Your task to perform on an android device: empty trash in google photos Image 0: 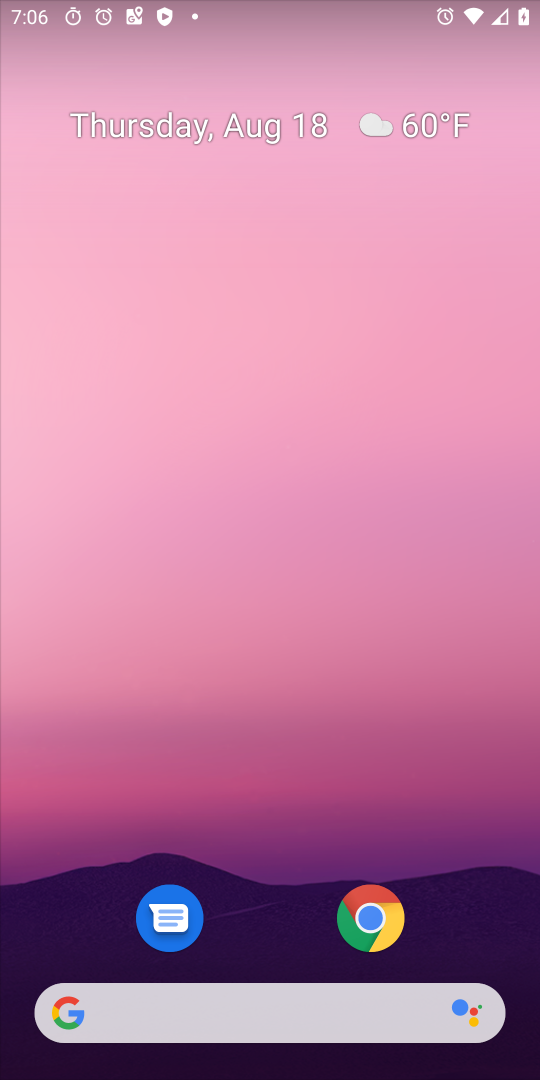
Step 0: drag from (248, 901) to (259, 243)
Your task to perform on an android device: empty trash in google photos Image 1: 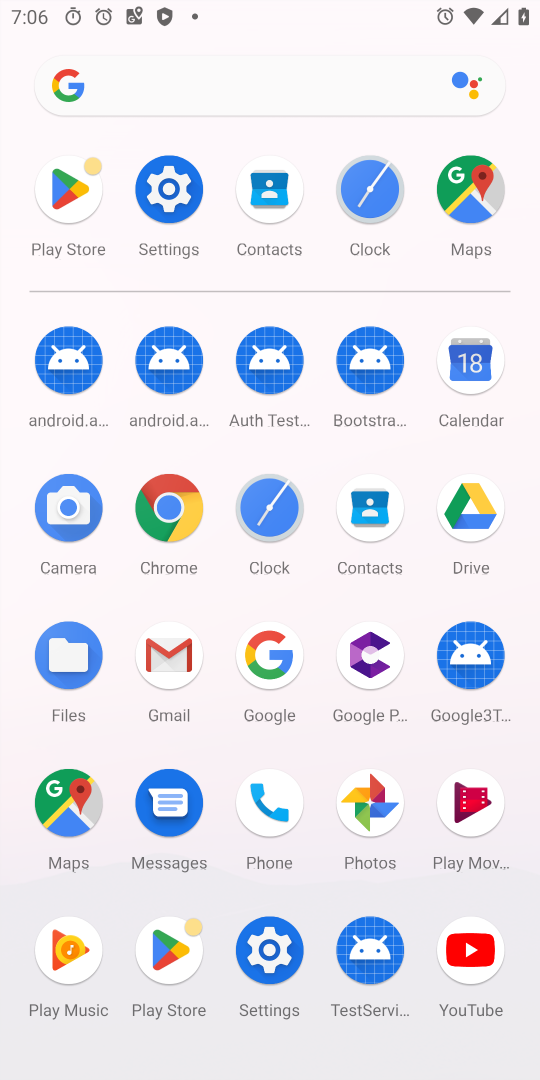
Step 1: click (350, 802)
Your task to perform on an android device: empty trash in google photos Image 2: 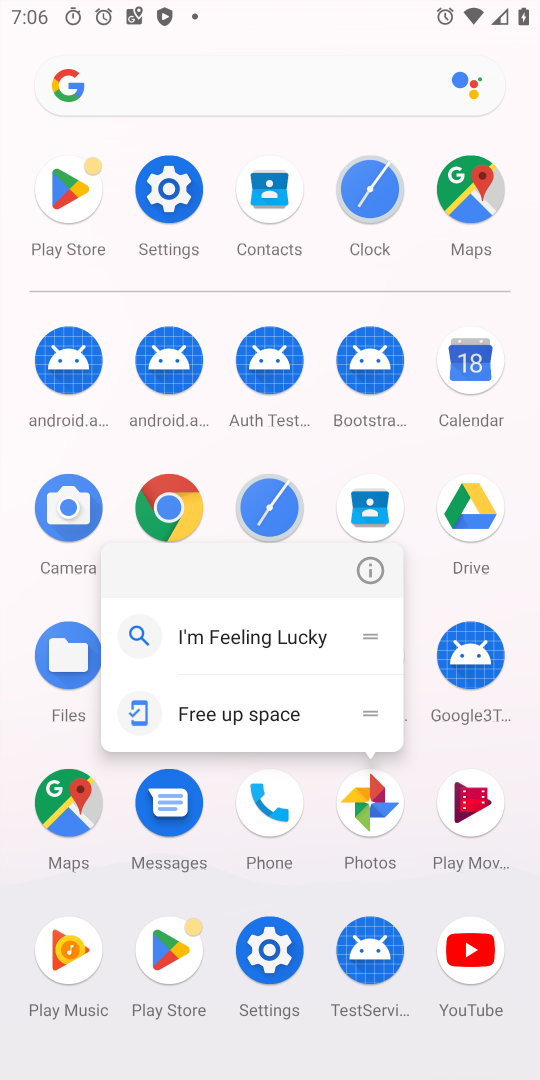
Step 2: click (368, 800)
Your task to perform on an android device: empty trash in google photos Image 3: 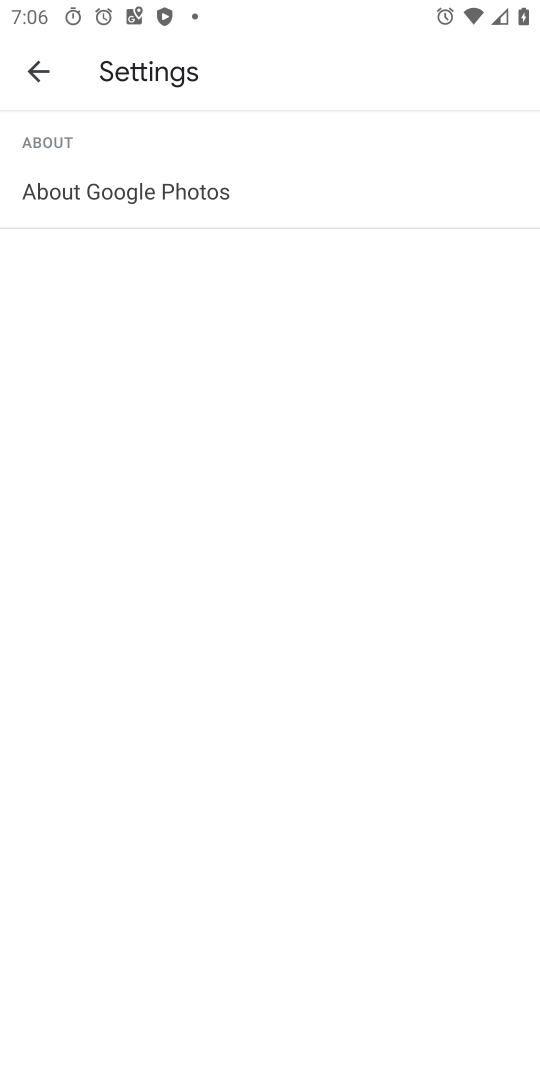
Step 3: press back button
Your task to perform on an android device: empty trash in google photos Image 4: 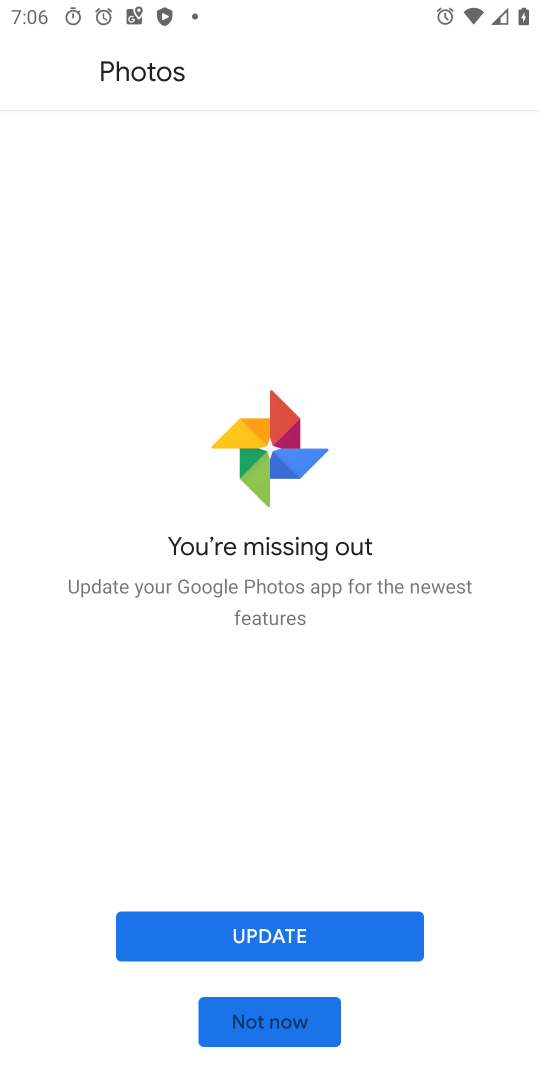
Step 4: click (278, 941)
Your task to perform on an android device: empty trash in google photos Image 5: 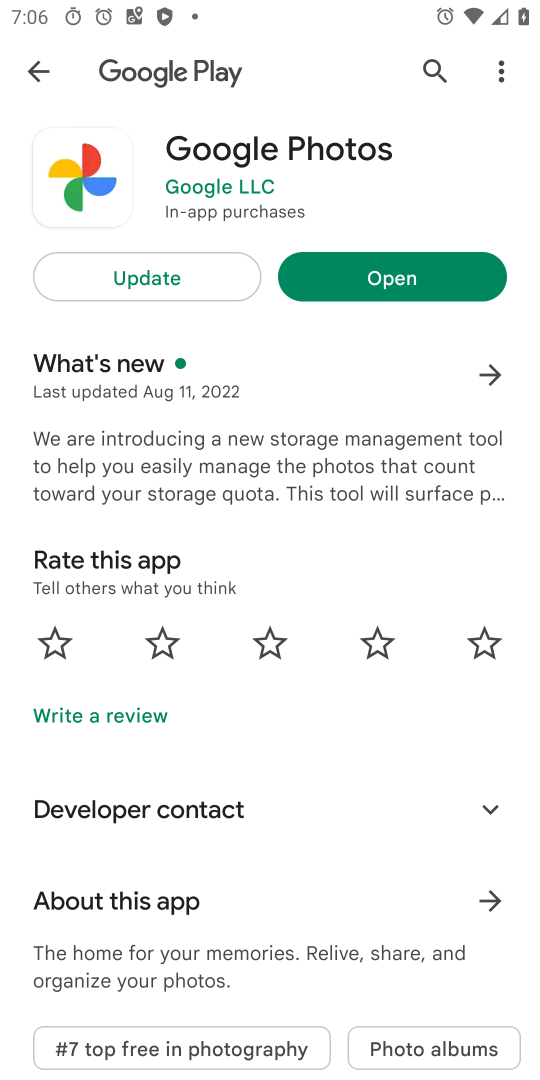
Step 5: click (163, 281)
Your task to perform on an android device: empty trash in google photos Image 6: 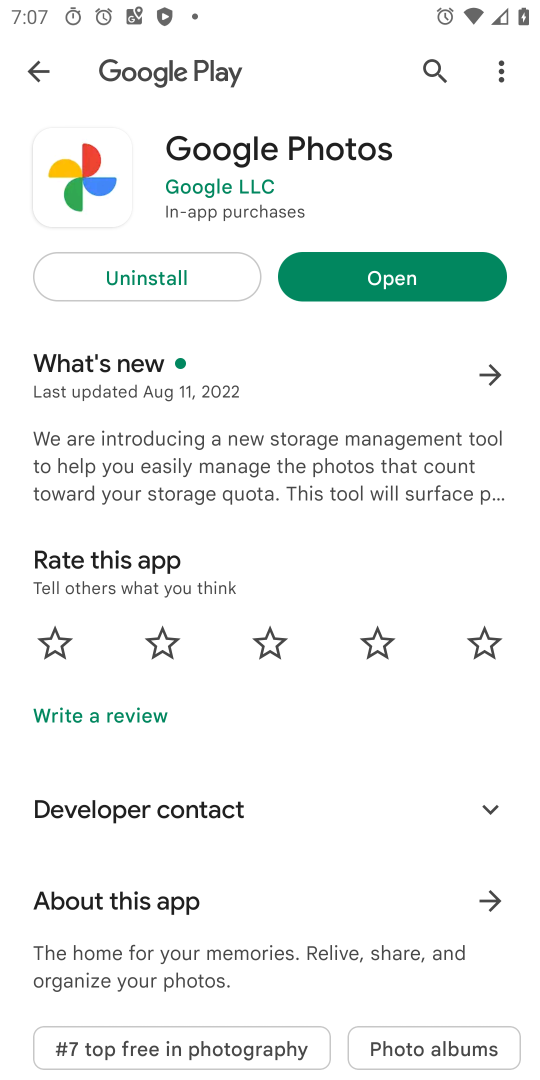
Step 6: click (338, 271)
Your task to perform on an android device: empty trash in google photos Image 7: 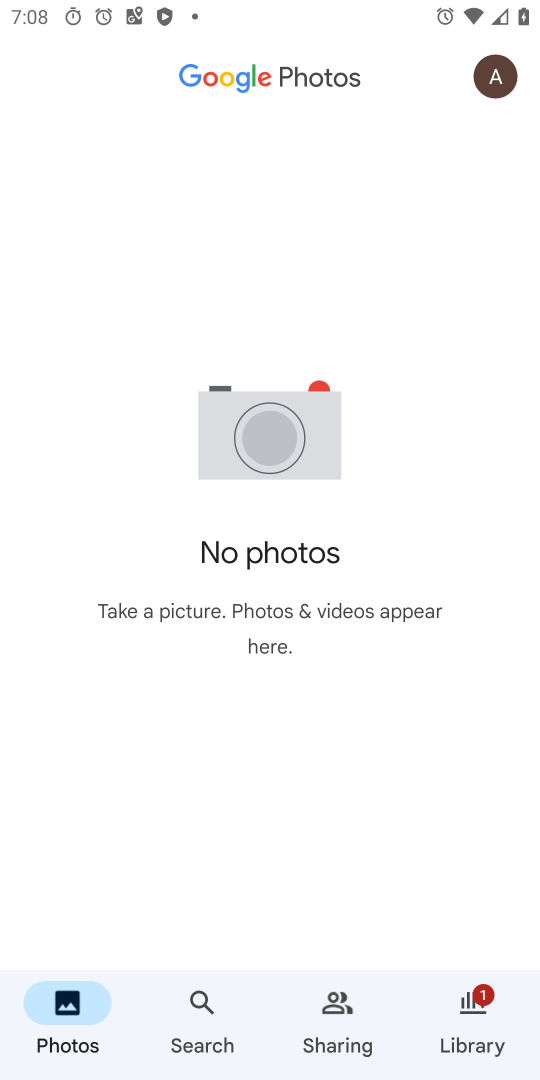
Step 7: click (453, 1027)
Your task to perform on an android device: empty trash in google photos Image 8: 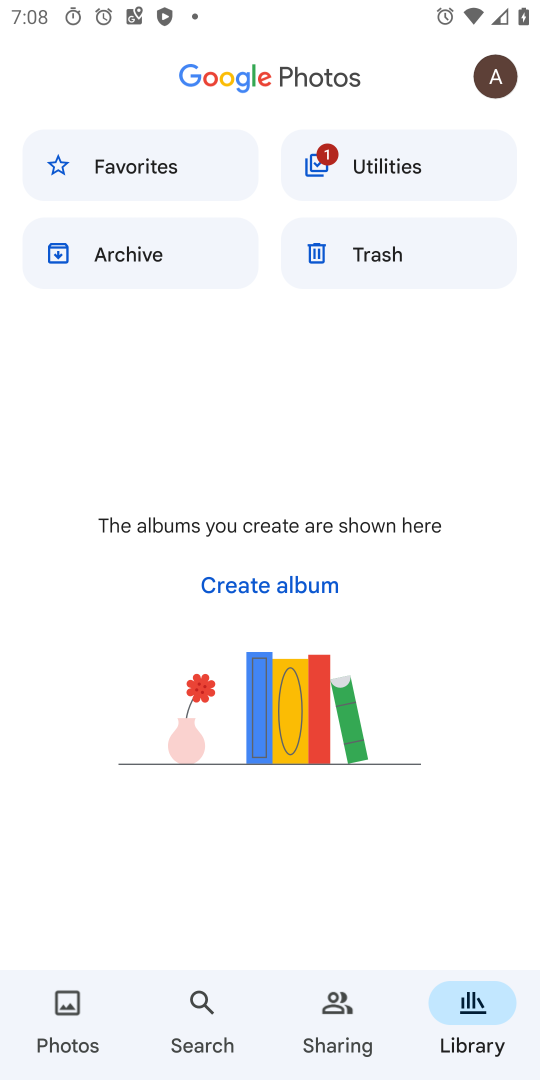
Step 8: click (395, 240)
Your task to perform on an android device: empty trash in google photos Image 9: 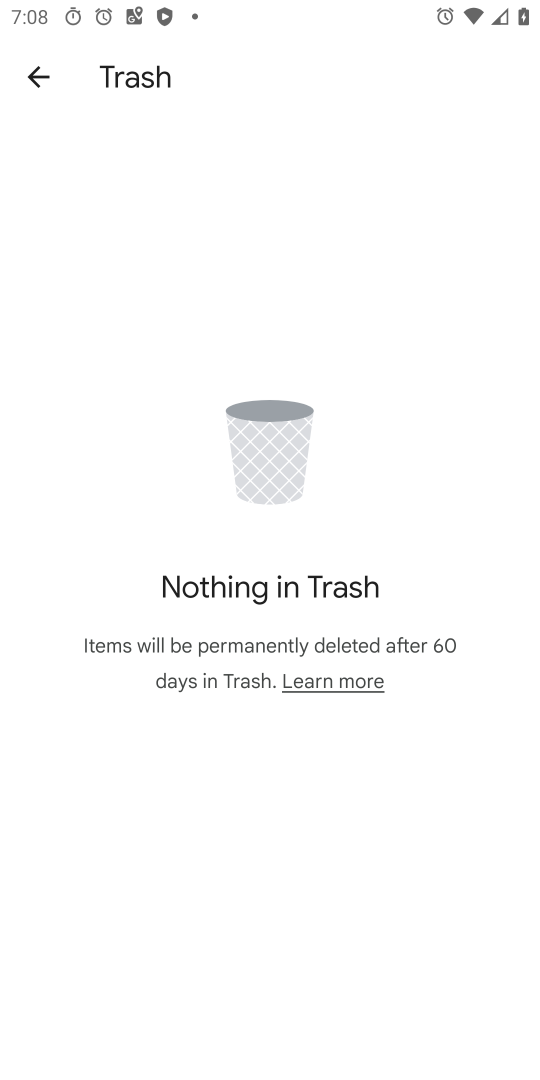
Step 9: task complete